Your task to perform on an android device: Open Yahoo.com Image 0: 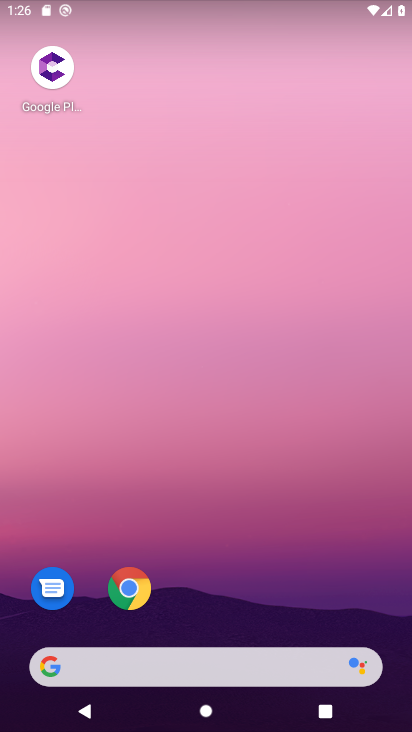
Step 0: drag from (229, 582) to (281, 160)
Your task to perform on an android device: Open Yahoo.com Image 1: 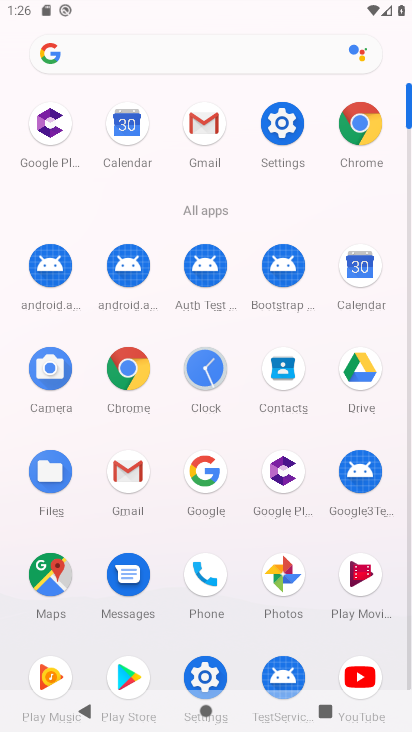
Step 1: click (149, 397)
Your task to perform on an android device: Open Yahoo.com Image 2: 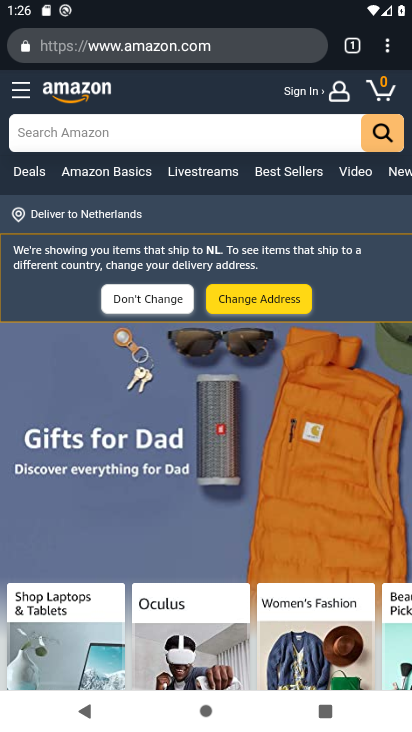
Step 2: click (360, 55)
Your task to perform on an android device: Open Yahoo.com Image 3: 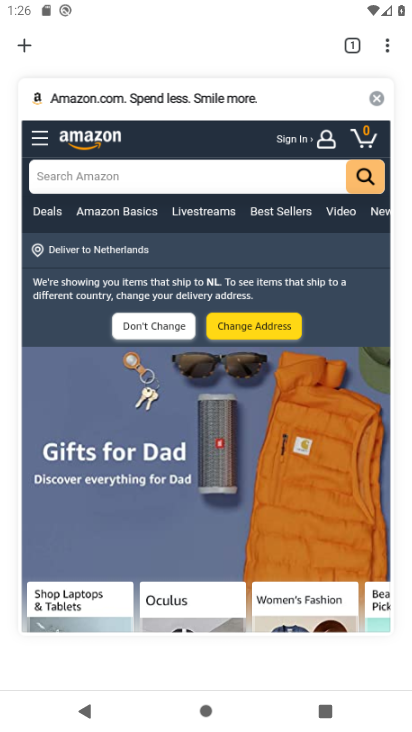
Step 3: click (26, 48)
Your task to perform on an android device: Open Yahoo.com Image 4: 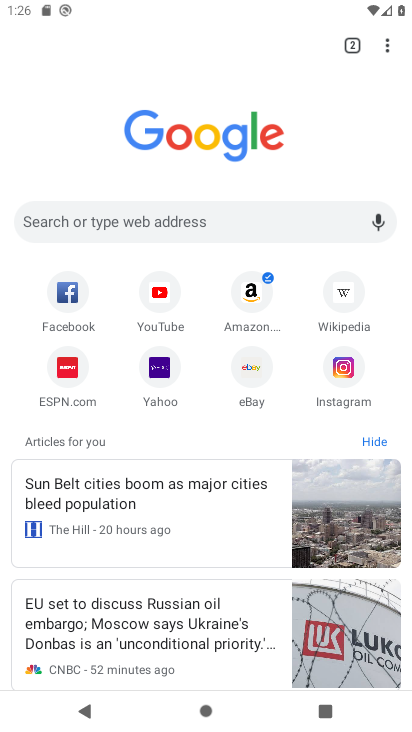
Step 4: click (162, 378)
Your task to perform on an android device: Open Yahoo.com Image 5: 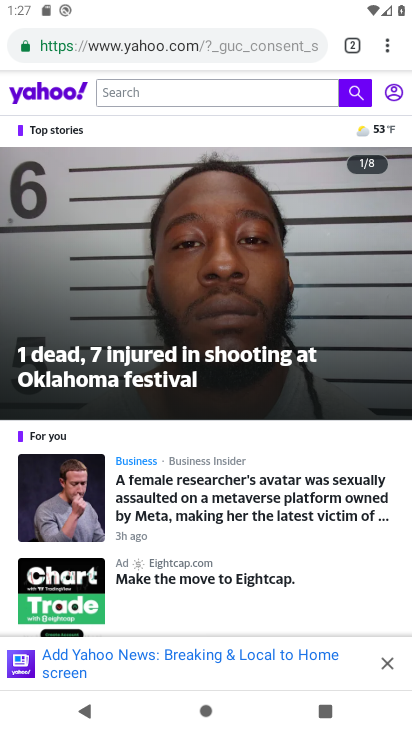
Step 5: task complete